Your task to perform on an android device: toggle translation in the chrome app Image 0: 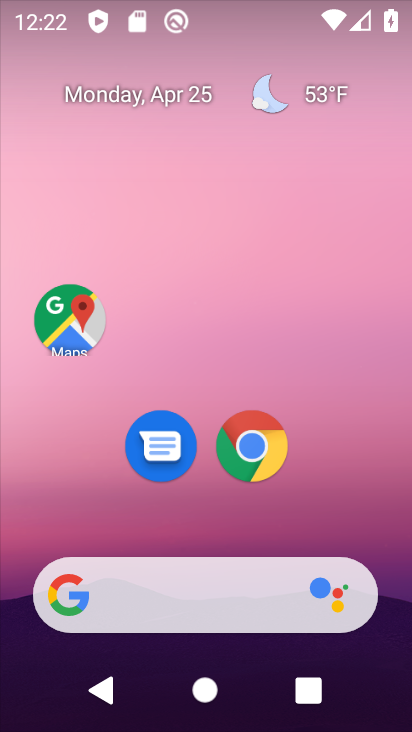
Step 0: click (248, 464)
Your task to perform on an android device: toggle translation in the chrome app Image 1: 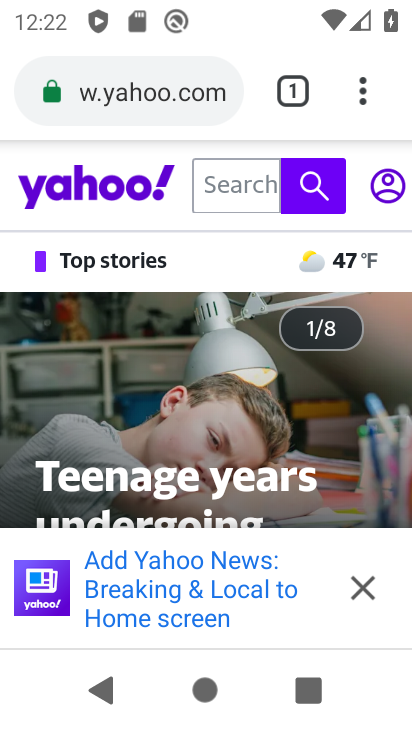
Step 1: click (364, 97)
Your task to perform on an android device: toggle translation in the chrome app Image 2: 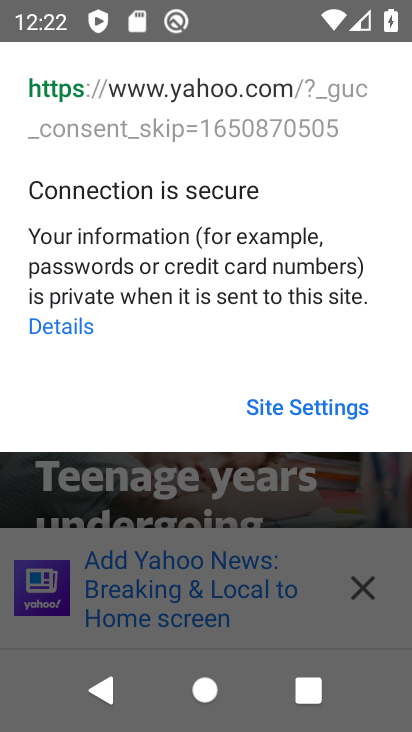
Step 2: click (63, 323)
Your task to perform on an android device: toggle translation in the chrome app Image 3: 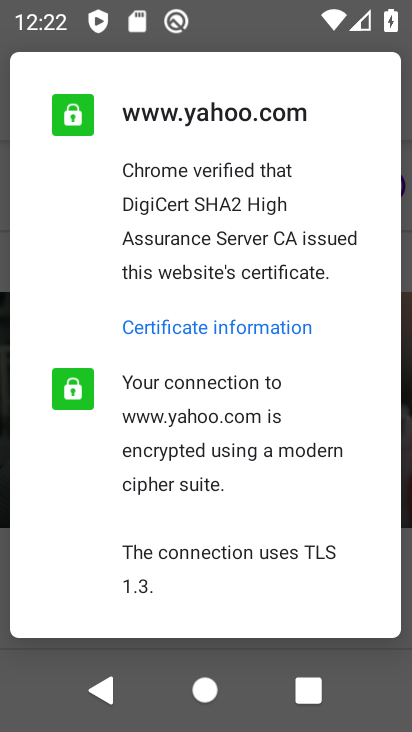
Step 3: press back button
Your task to perform on an android device: toggle translation in the chrome app Image 4: 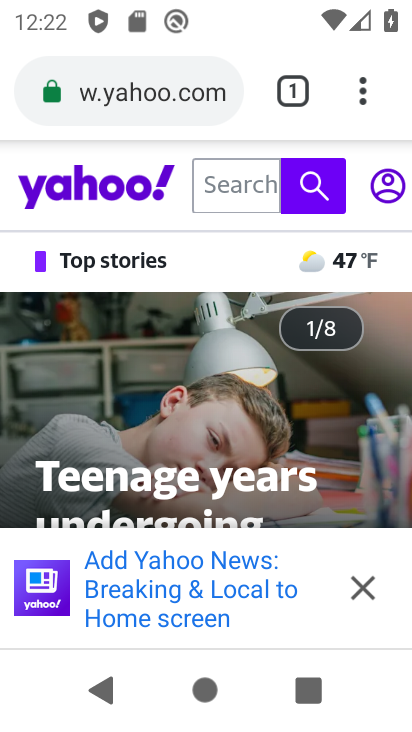
Step 4: click (358, 91)
Your task to perform on an android device: toggle translation in the chrome app Image 5: 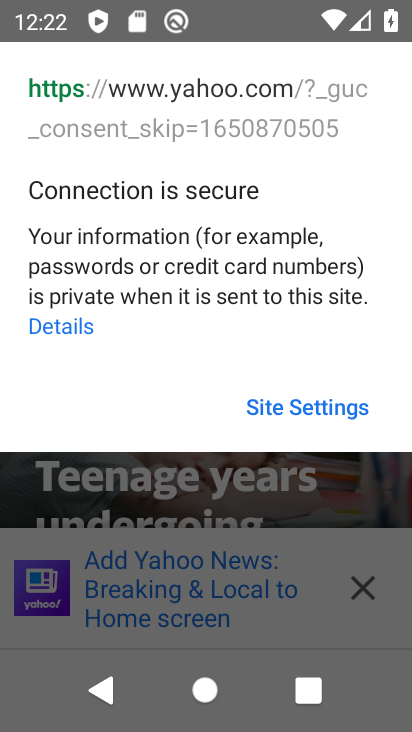
Step 5: click (266, 476)
Your task to perform on an android device: toggle translation in the chrome app Image 6: 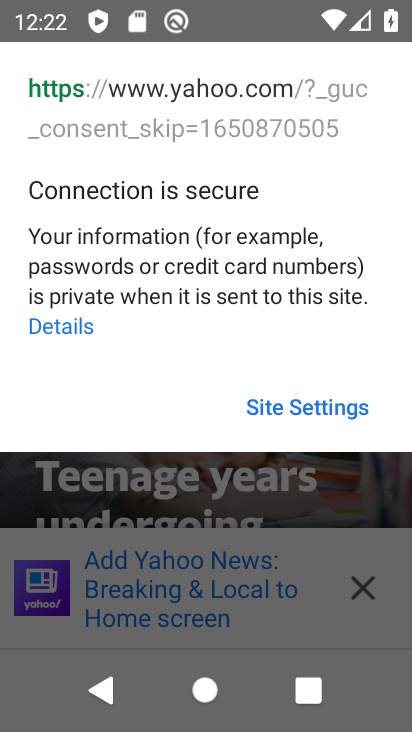
Step 6: click (360, 579)
Your task to perform on an android device: toggle translation in the chrome app Image 7: 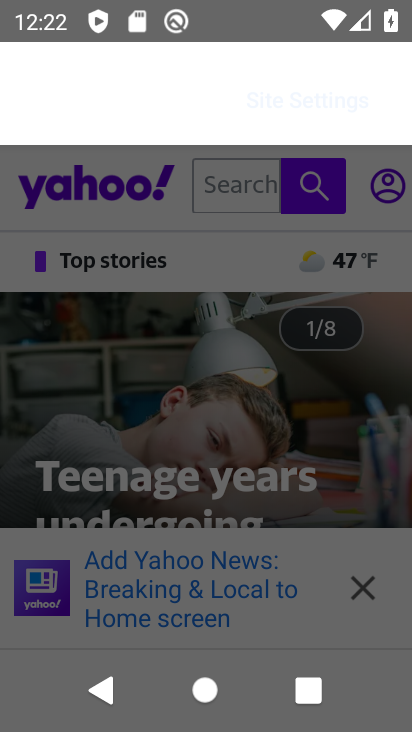
Step 7: press back button
Your task to perform on an android device: toggle translation in the chrome app Image 8: 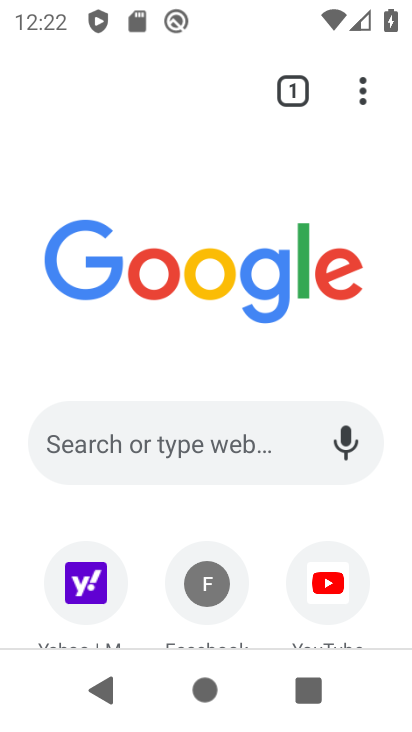
Step 8: click (359, 98)
Your task to perform on an android device: toggle translation in the chrome app Image 9: 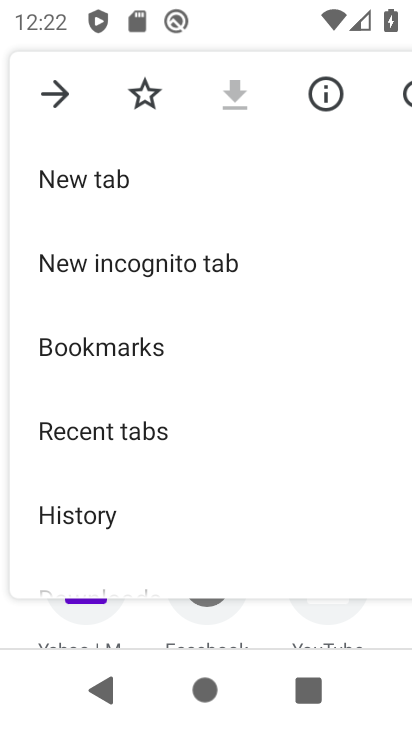
Step 9: drag from (100, 467) to (189, 117)
Your task to perform on an android device: toggle translation in the chrome app Image 10: 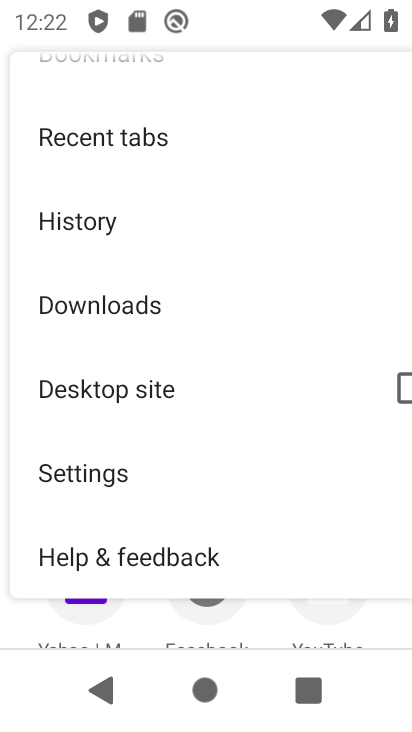
Step 10: click (77, 486)
Your task to perform on an android device: toggle translation in the chrome app Image 11: 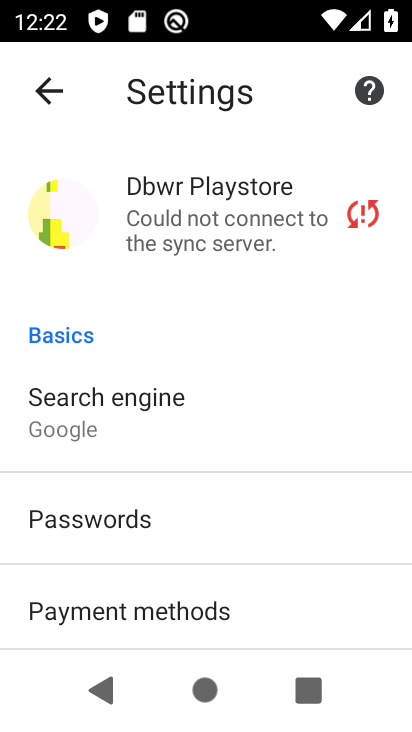
Step 11: drag from (142, 539) to (191, 251)
Your task to perform on an android device: toggle translation in the chrome app Image 12: 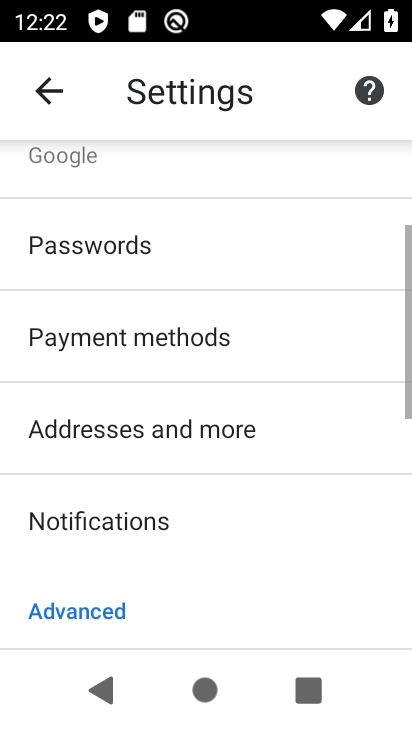
Step 12: drag from (119, 541) to (211, 154)
Your task to perform on an android device: toggle translation in the chrome app Image 13: 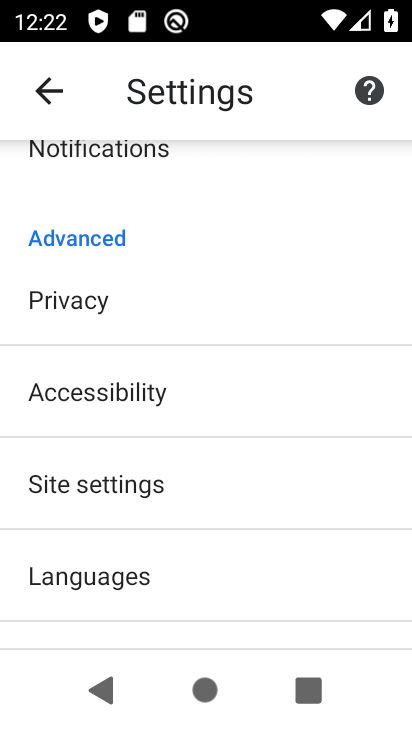
Step 13: drag from (105, 532) to (137, 309)
Your task to perform on an android device: toggle translation in the chrome app Image 14: 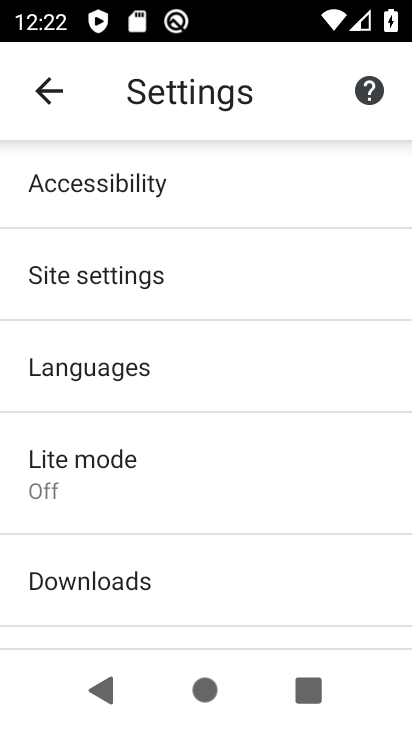
Step 14: click (121, 373)
Your task to perform on an android device: toggle translation in the chrome app Image 15: 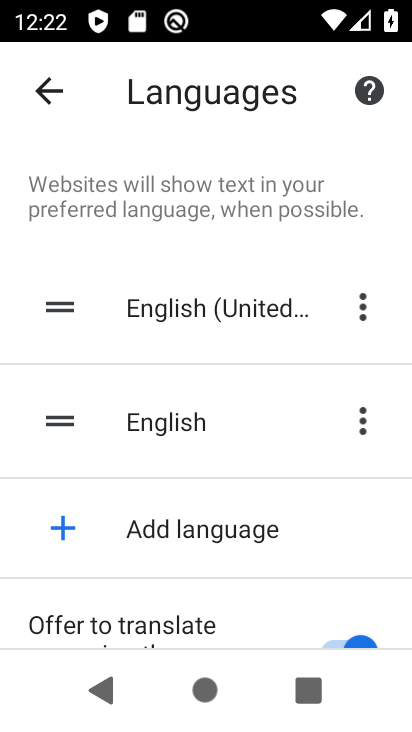
Step 15: drag from (225, 519) to (272, 276)
Your task to perform on an android device: toggle translation in the chrome app Image 16: 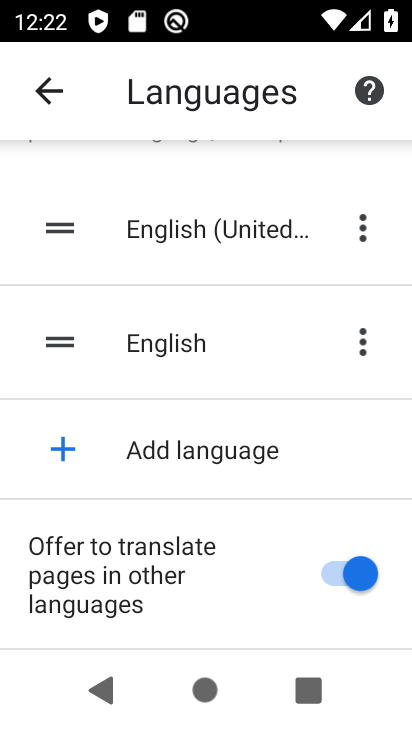
Step 16: click (316, 575)
Your task to perform on an android device: toggle translation in the chrome app Image 17: 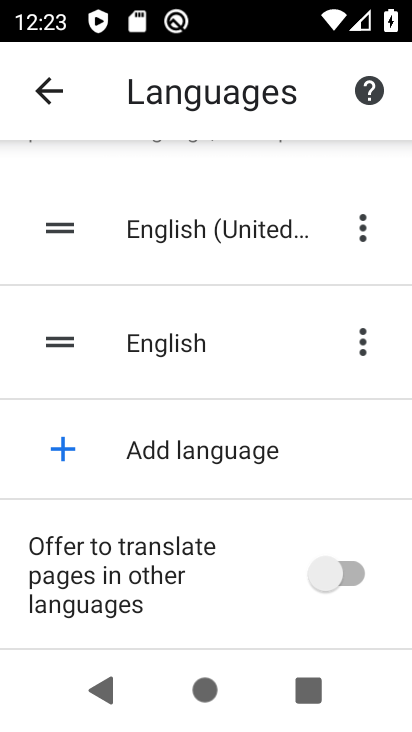
Step 17: task complete